Your task to perform on an android device: find photos in the google photos app Image 0: 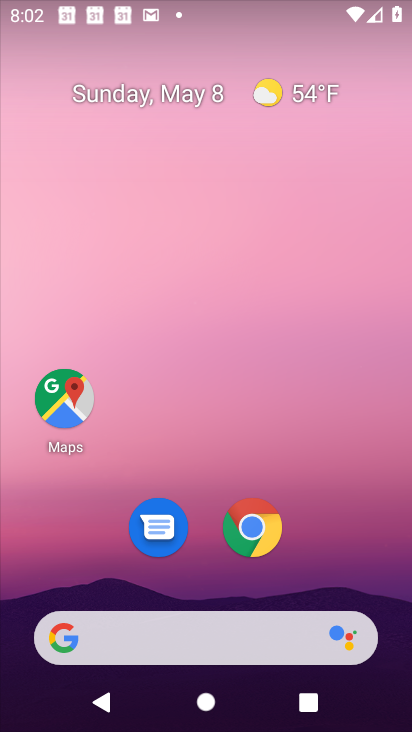
Step 0: drag from (328, 561) to (289, 30)
Your task to perform on an android device: find photos in the google photos app Image 1: 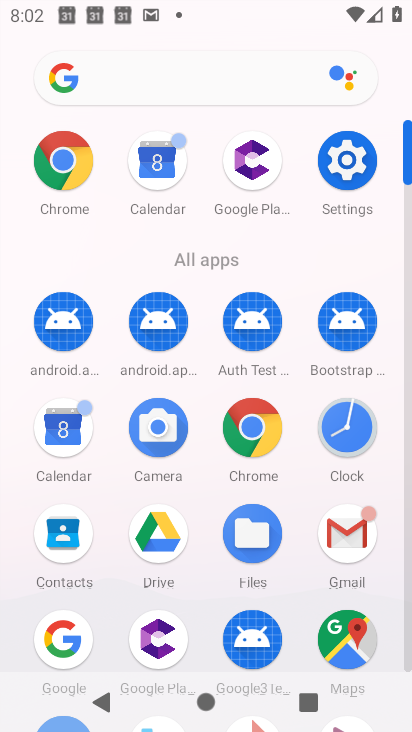
Step 1: drag from (303, 622) to (284, 323)
Your task to perform on an android device: find photos in the google photos app Image 2: 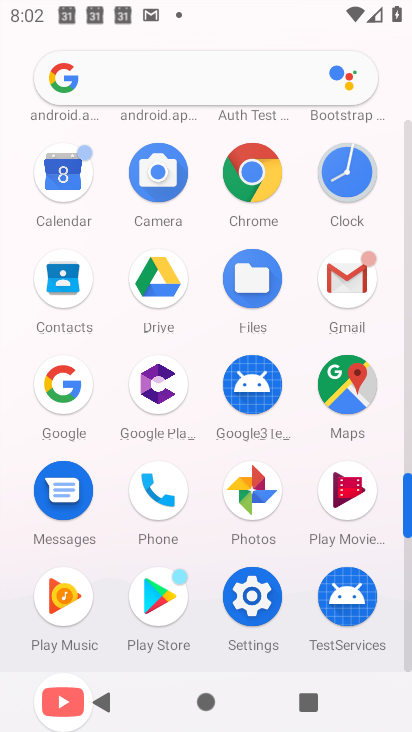
Step 2: click (262, 491)
Your task to perform on an android device: find photos in the google photos app Image 3: 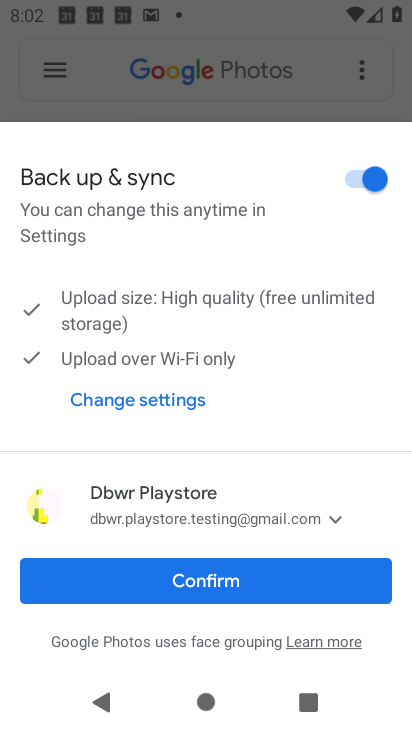
Step 3: click (223, 576)
Your task to perform on an android device: find photos in the google photos app Image 4: 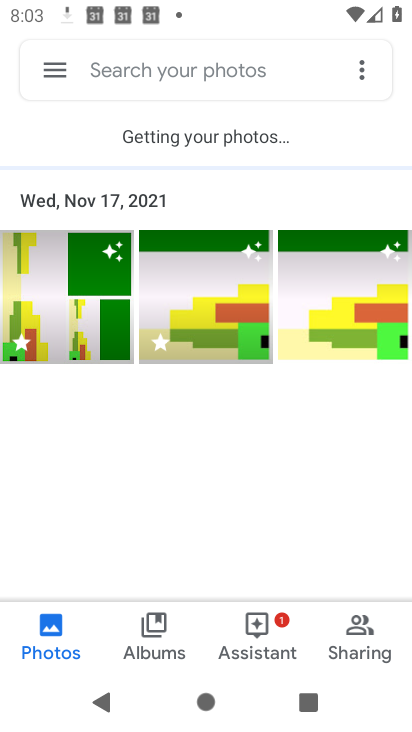
Step 4: task complete